Your task to perform on an android device: remove spam from my inbox in the gmail app Image 0: 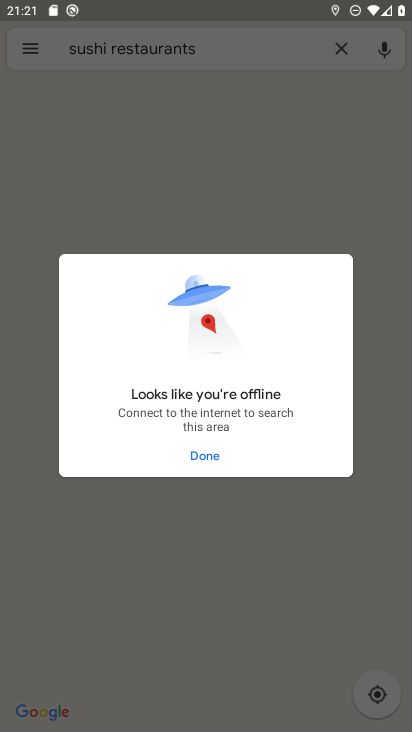
Step 0: press home button
Your task to perform on an android device: remove spam from my inbox in the gmail app Image 1: 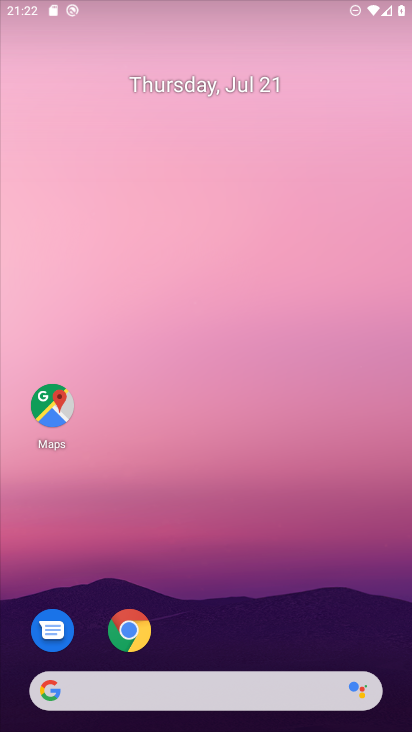
Step 1: drag from (256, 682) to (209, 94)
Your task to perform on an android device: remove spam from my inbox in the gmail app Image 2: 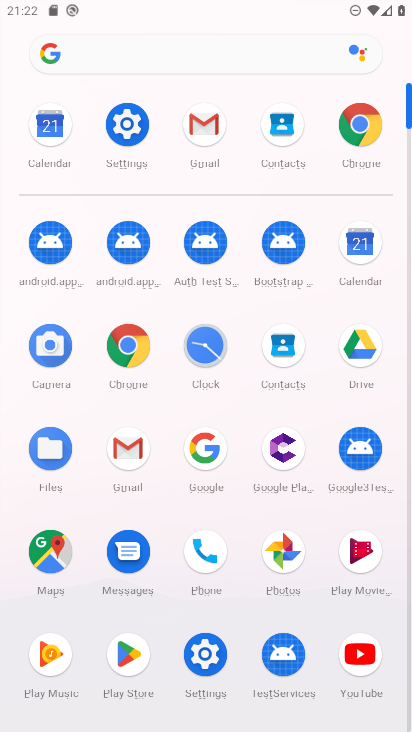
Step 2: click (213, 120)
Your task to perform on an android device: remove spam from my inbox in the gmail app Image 3: 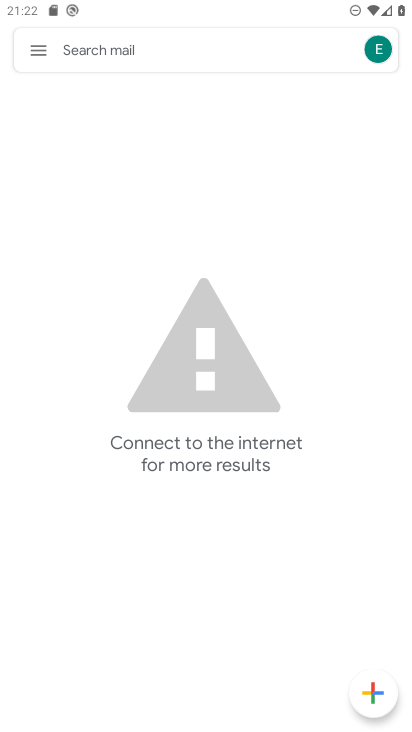
Step 3: click (37, 50)
Your task to perform on an android device: remove spam from my inbox in the gmail app Image 4: 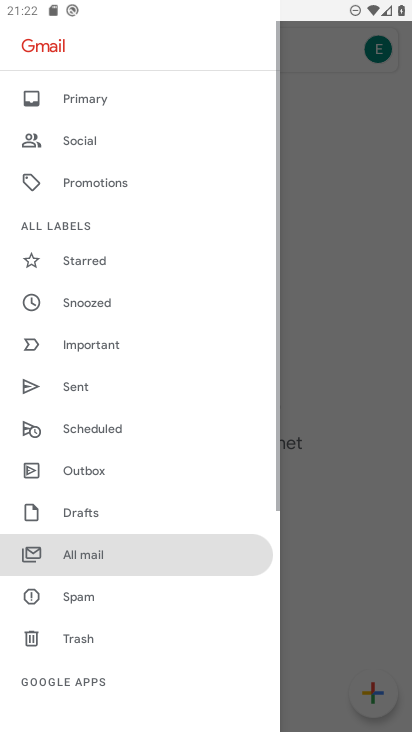
Step 4: drag from (115, 108) to (108, 403)
Your task to perform on an android device: remove spam from my inbox in the gmail app Image 5: 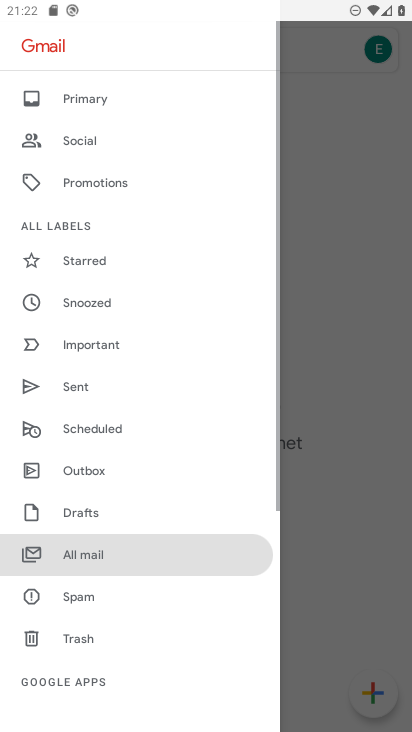
Step 5: click (89, 88)
Your task to perform on an android device: remove spam from my inbox in the gmail app Image 6: 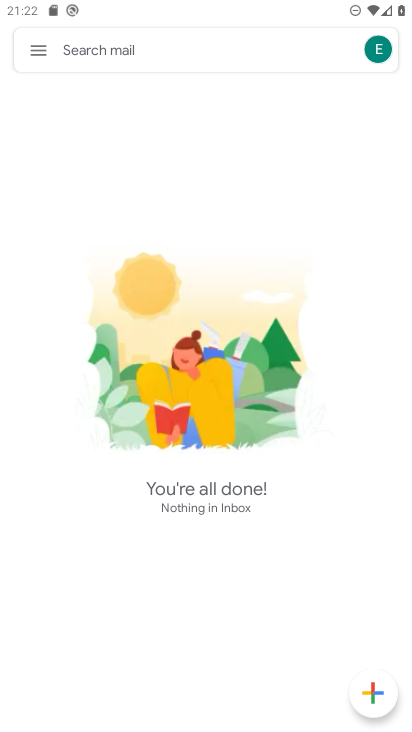
Step 6: task complete